Your task to perform on an android device: Open privacy settings Image 0: 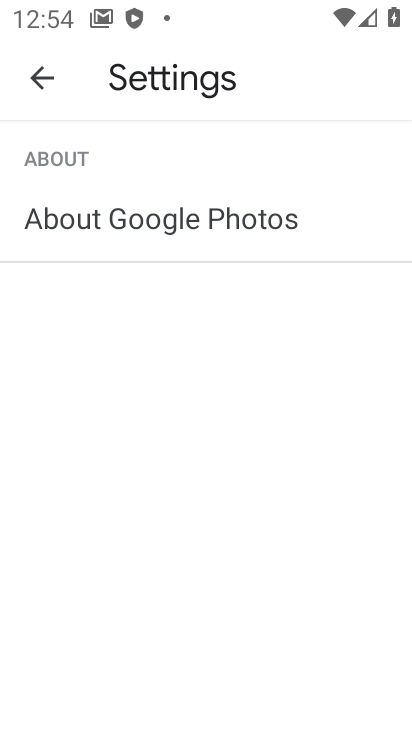
Step 0: press home button
Your task to perform on an android device: Open privacy settings Image 1: 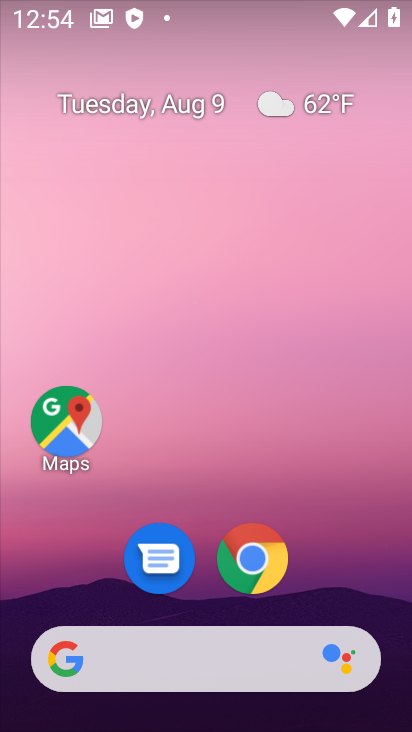
Step 1: drag from (352, 586) to (288, 212)
Your task to perform on an android device: Open privacy settings Image 2: 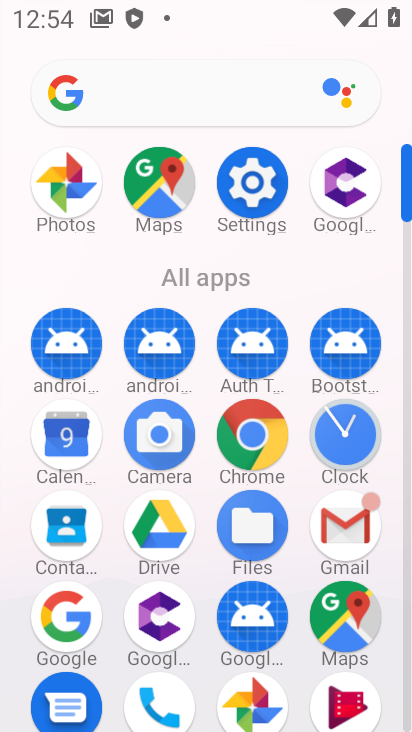
Step 2: click (268, 208)
Your task to perform on an android device: Open privacy settings Image 3: 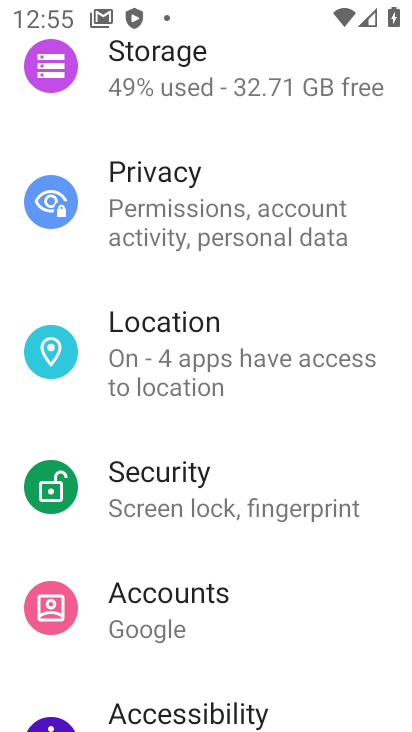
Step 3: drag from (377, 637) to (285, 299)
Your task to perform on an android device: Open privacy settings Image 4: 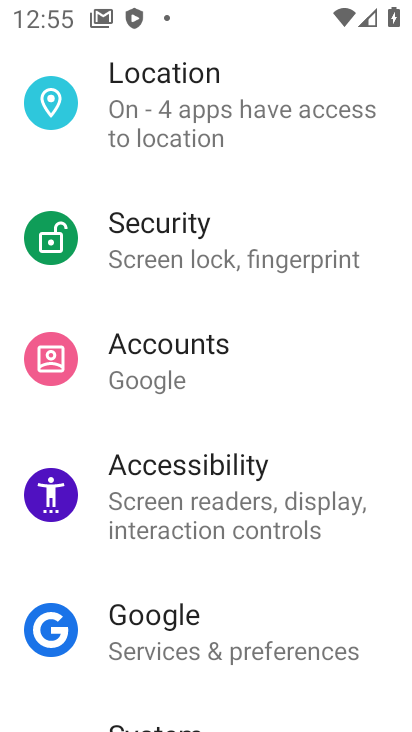
Step 4: drag from (353, 617) to (260, 295)
Your task to perform on an android device: Open privacy settings Image 5: 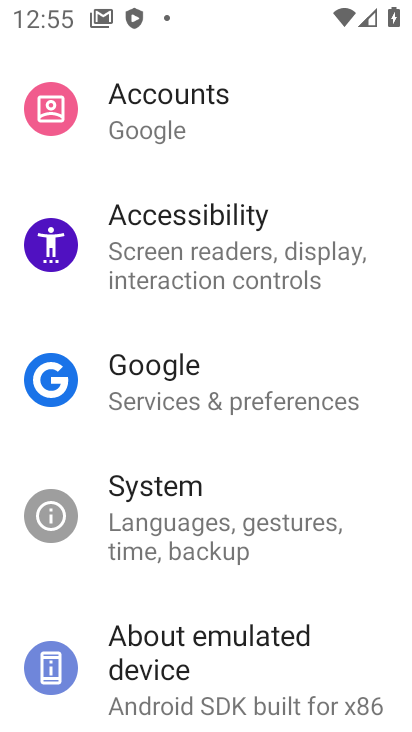
Step 5: drag from (226, 316) to (309, 719)
Your task to perform on an android device: Open privacy settings Image 6: 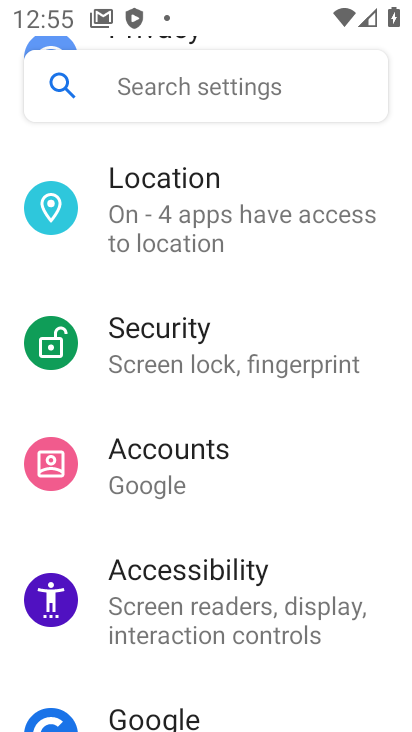
Step 6: drag from (265, 201) to (321, 576)
Your task to perform on an android device: Open privacy settings Image 7: 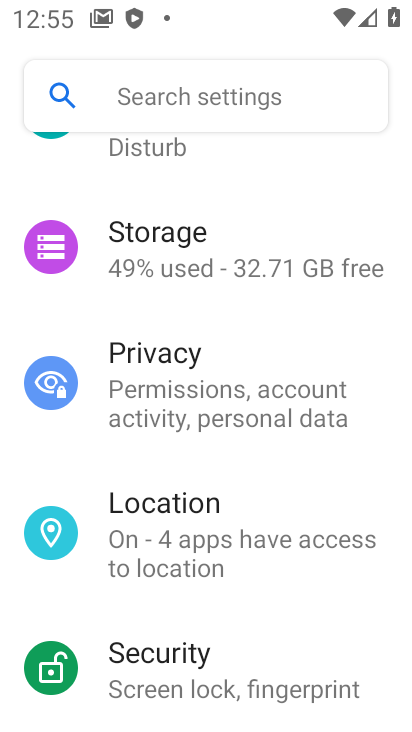
Step 7: click (194, 394)
Your task to perform on an android device: Open privacy settings Image 8: 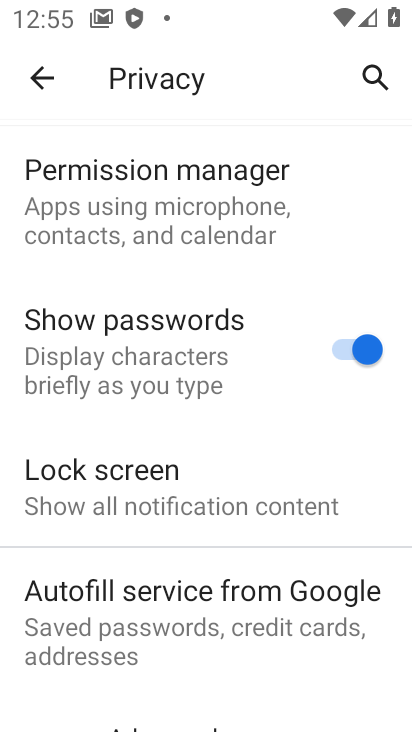
Step 8: task complete